Your task to perform on an android device: see sites visited before in the chrome app Image 0: 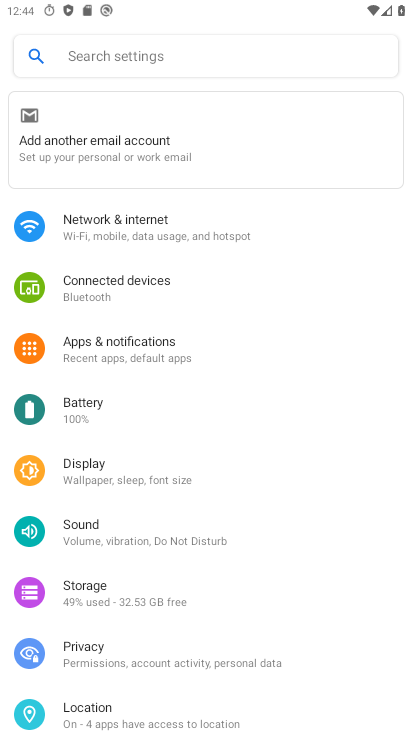
Step 0: press back button
Your task to perform on an android device: see sites visited before in the chrome app Image 1: 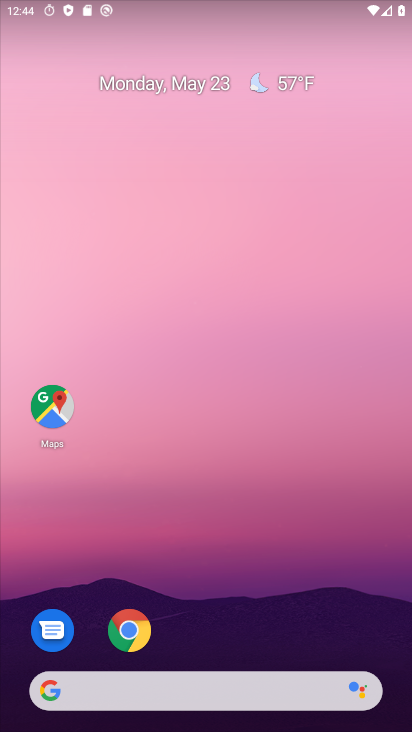
Step 1: drag from (251, 591) to (251, 81)
Your task to perform on an android device: see sites visited before in the chrome app Image 2: 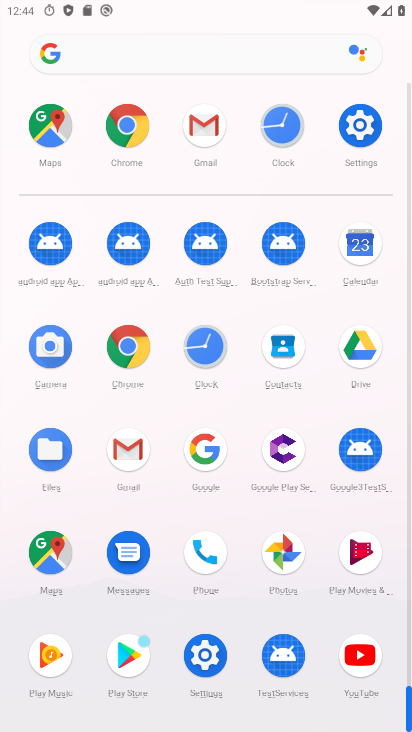
Step 2: click (123, 345)
Your task to perform on an android device: see sites visited before in the chrome app Image 3: 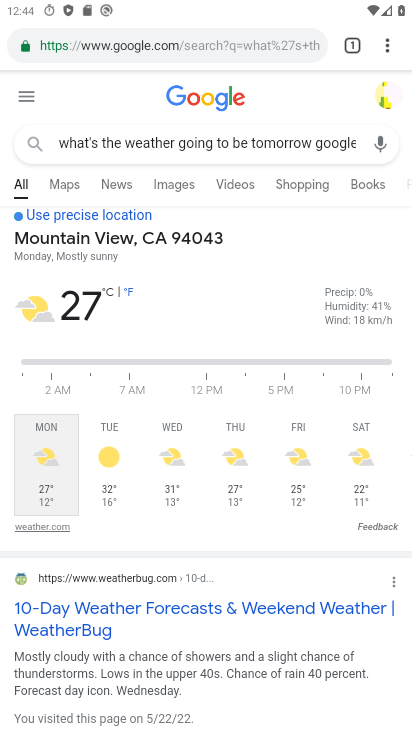
Step 3: drag from (379, 49) to (252, 239)
Your task to perform on an android device: see sites visited before in the chrome app Image 4: 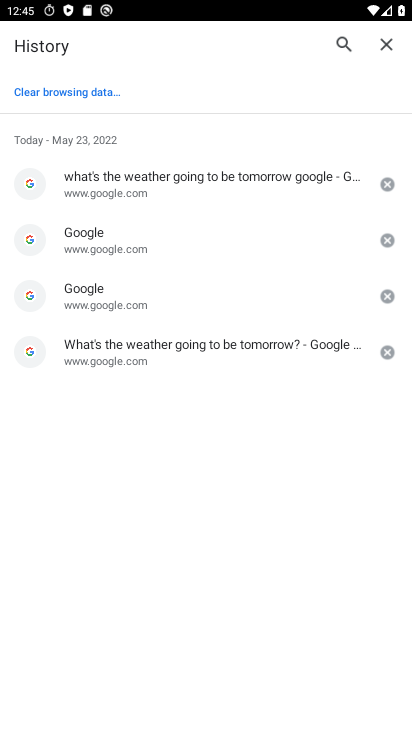
Step 4: click (81, 97)
Your task to perform on an android device: see sites visited before in the chrome app Image 5: 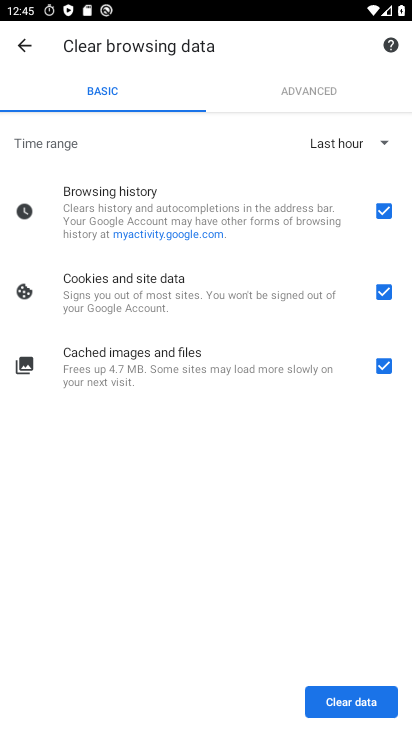
Step 5: click (354, 701)
Your task to perform on an android device: see sites visited before in the chrome app Image 6: 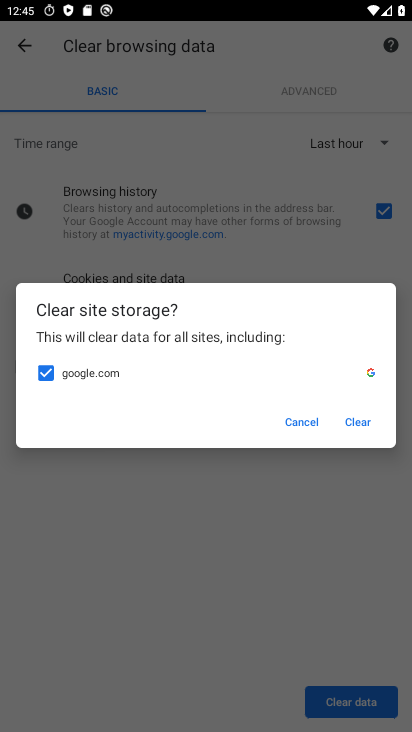
Step 6: click (351, 425)
Your task to perform on an android device: see sites visited before in the chrome app Image 7: 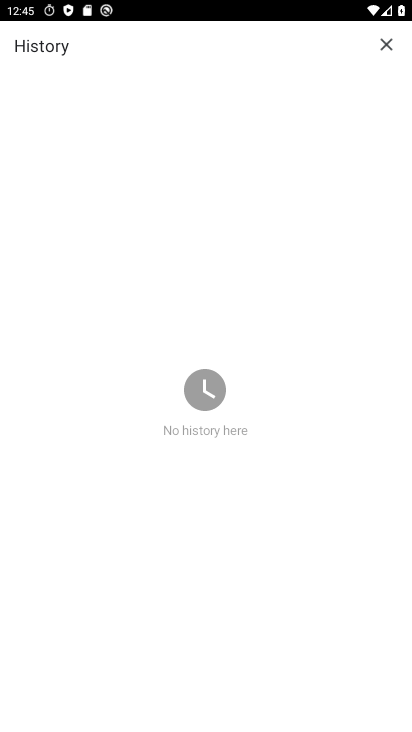
Step 7: task complete